Your task to perform on an android device: Open notification settings Image 0: 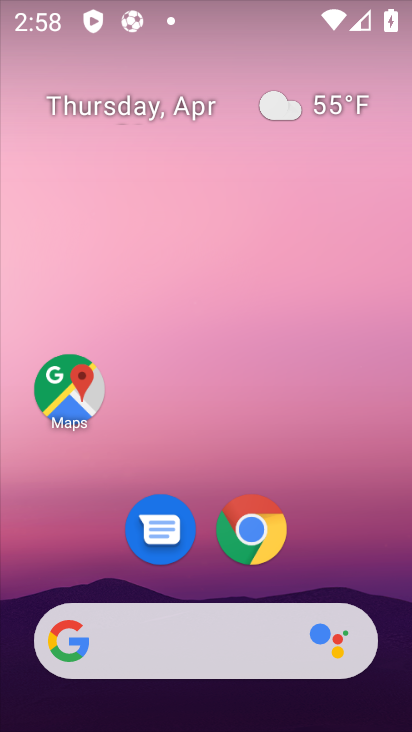
Step 0: drag from (190, 565) to (198, 104)
Your task to perform on an android device: Open notification settings Image 1: 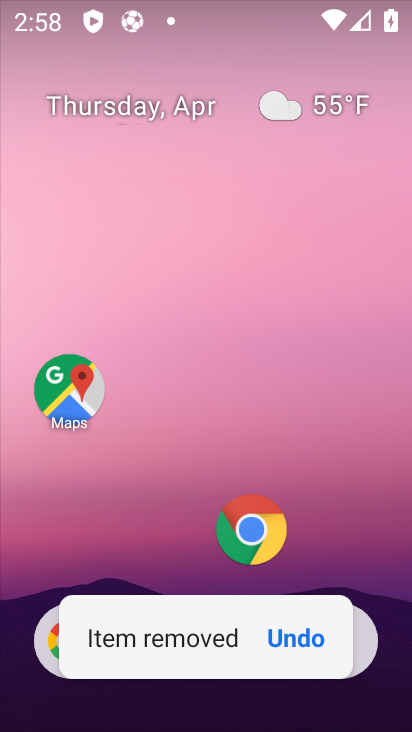
Step 1: drag from (141, 543) to (198, 129)
Your task to perform on an android device: Open notification settings Image 2: 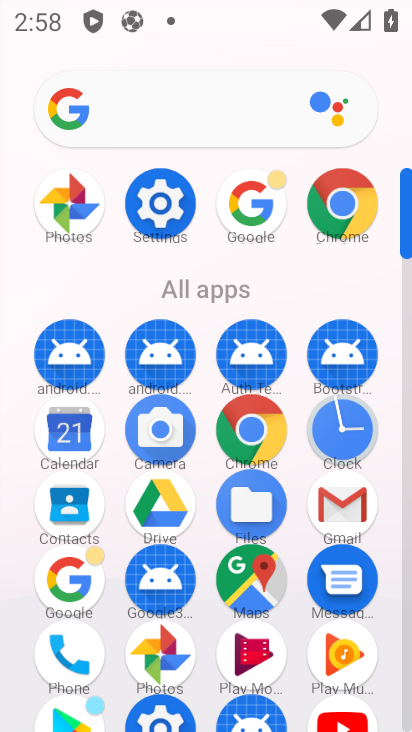
Step 2: click (162, 207)
Your task to perform on an android device: Open notification settings Image 3: 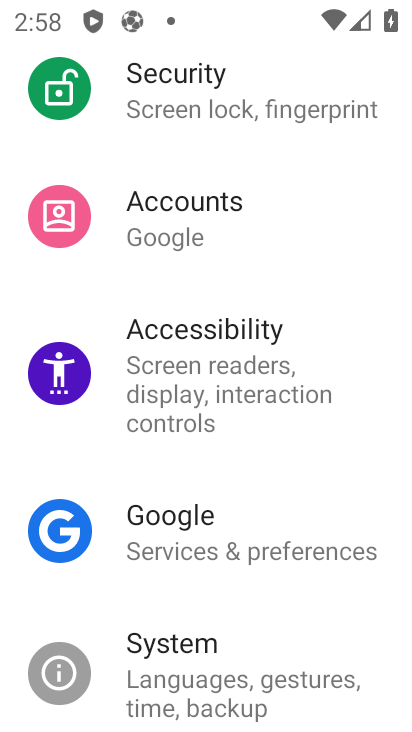
Step 3: drag from (195, 134) to (148, 542)
Your task to perform on an android device: Open notification settings Image 4: 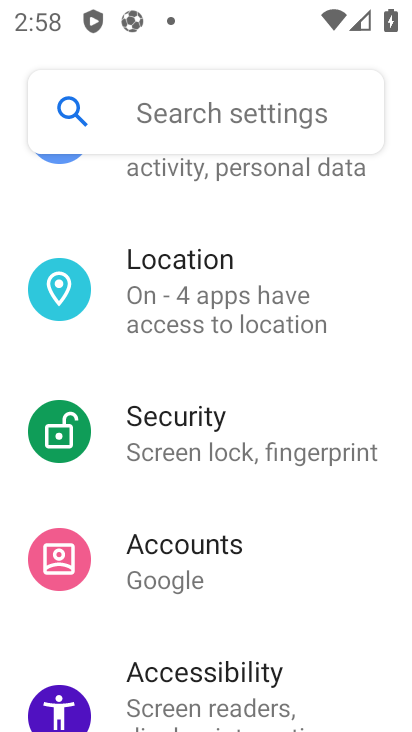
Step 4: drag from (188, 201) to (136, 488)
Your task to perform on an android device: Open notification settings Image 5: 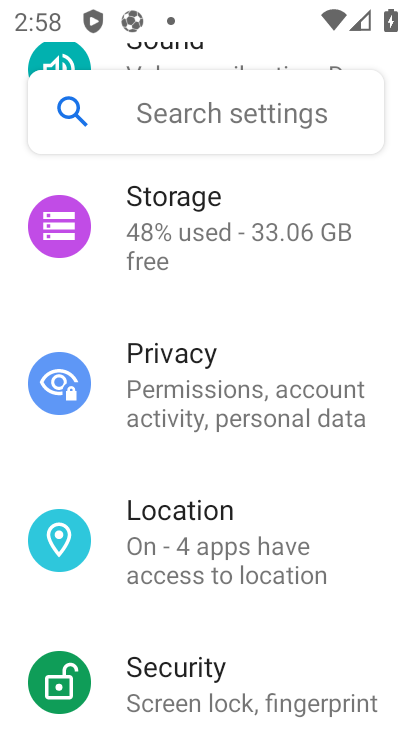
Step 5: drag from (218, 197) to (185, 441)
Your task to perform on an android device: Open notification settings Image 6: 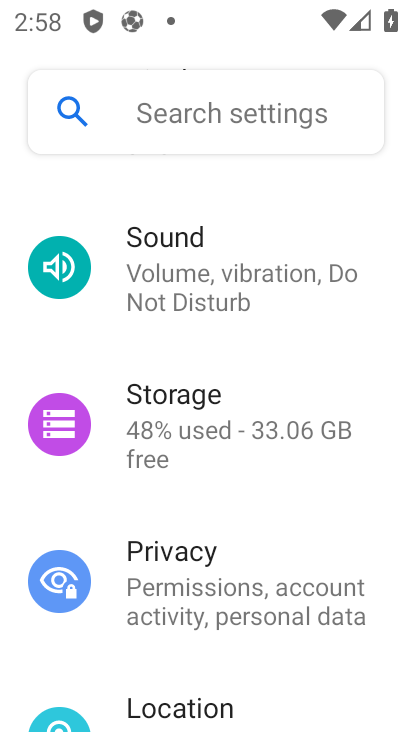
Step 6: drag from (263, 214) to (239, 433)
Your task to perform on an android device: Open notification settings Image 7: 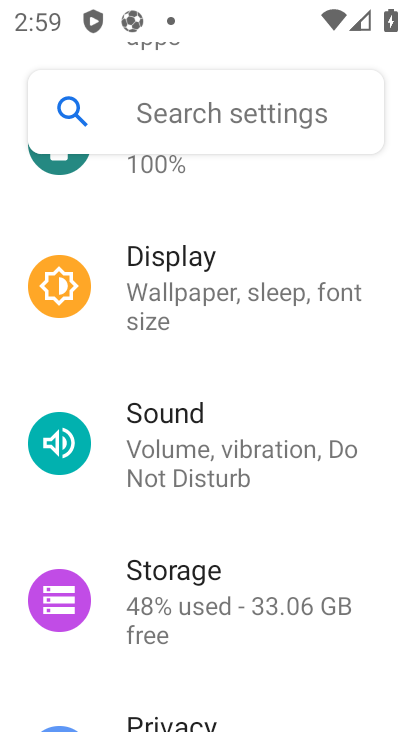
Step 7: drag from (269, 191) to (160, 432)
Your task to perform on an android device: Open notification settings Image 8: 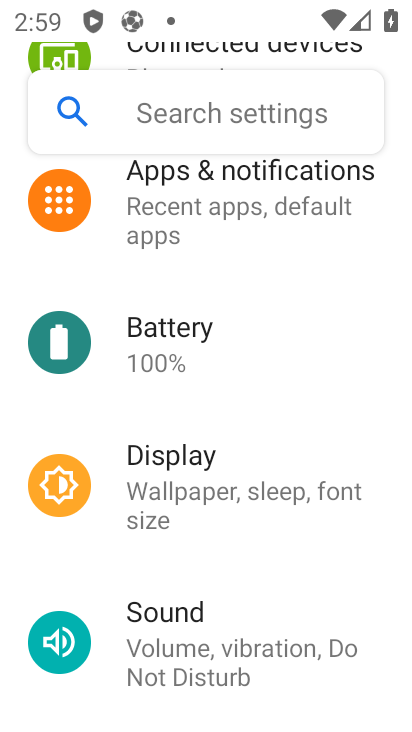
Step 8: click (194, 197)
Your task to perform on an android device: Open notification settings Image 9: 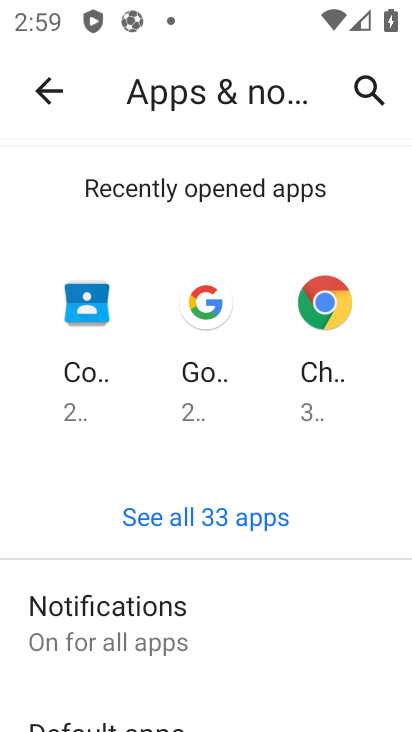
Step 9: task complete